Your task to perform on an android device: move a message to another label in the gmail app Image 0: 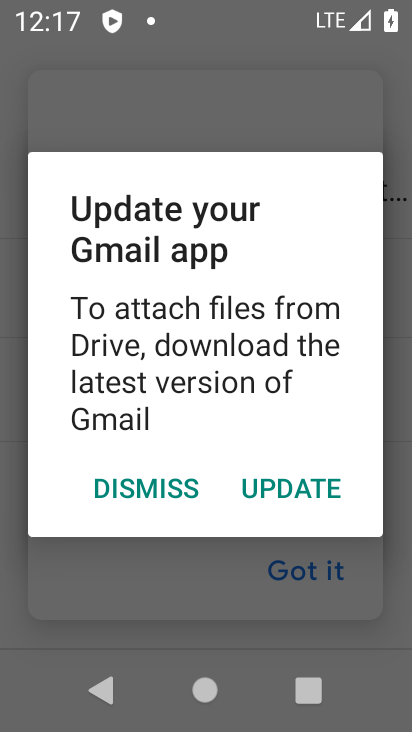
Step 0: press back button
Your task to perform on an android device: move a message to another label in the gmail app Image 1: 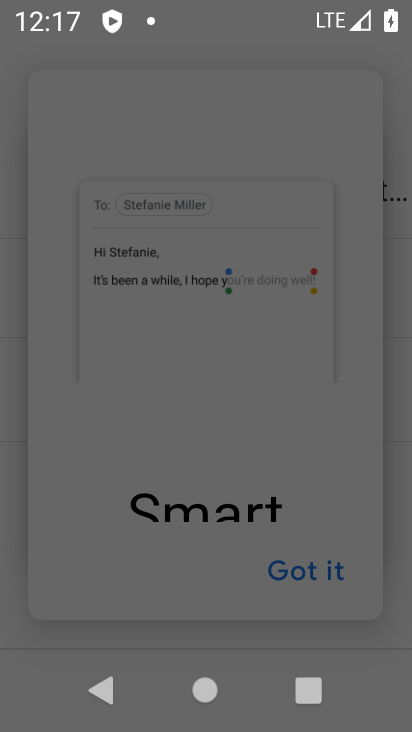
Step 1: press back button
Your task to perform on an android device: move a message to another label in the gmail app Image 2: 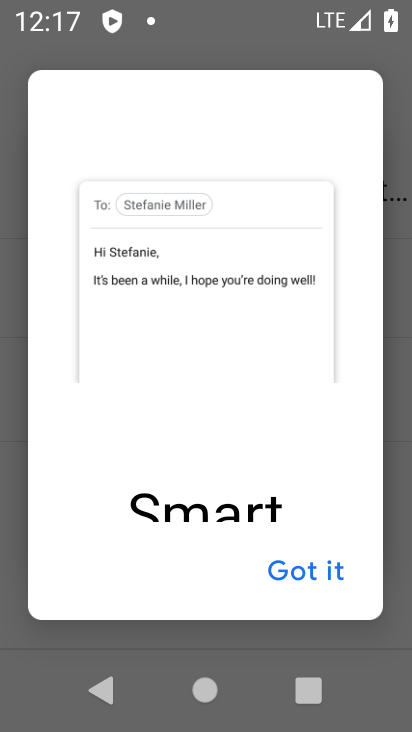
Step 2: press home button
Your task to perform on an android device: move a message to another label in the gmail app Image 3: 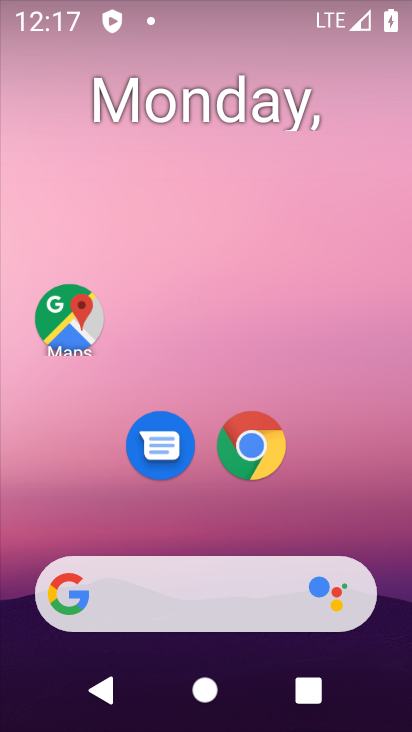
Step 3: drag from (200, 548) to (256, 265)
Your task to perform on an android device: move a message to another label in the gmail app Image 4: 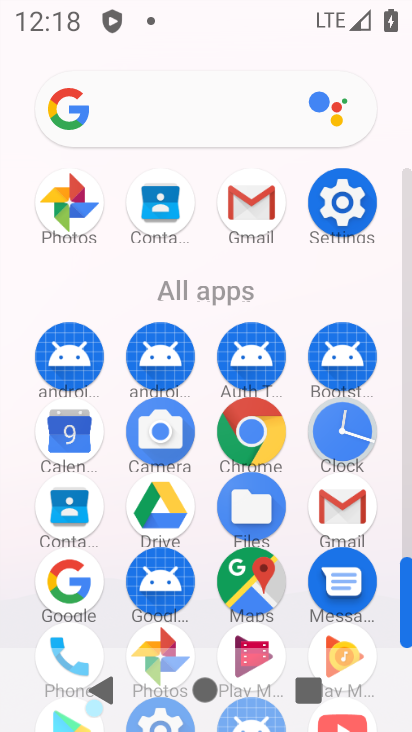
Step 4: click (343, 505)
Your task to perform on an android device: move a message to another label in the gmail app Image 5: 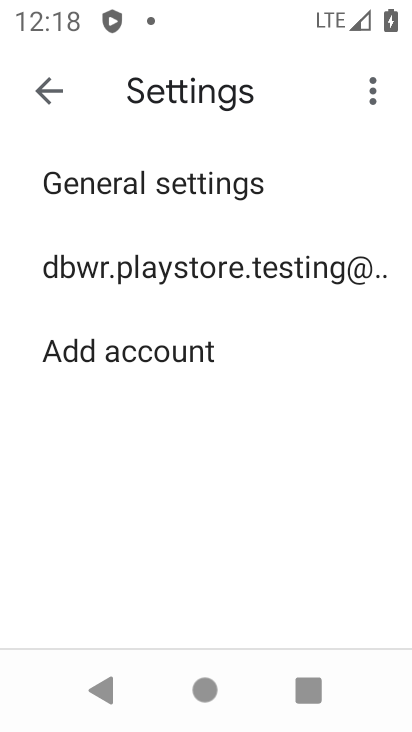
Step 5: click (39, 113)
Your task to perform on an android device: move a message to another label in the gmail app Image 6: 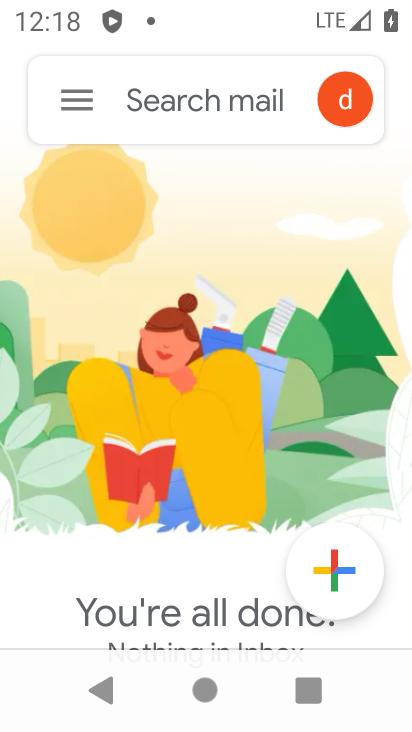
Step 6: click (41, 112)
Your task to perform on an android device: move a message to another label in the gmail app Image 7: 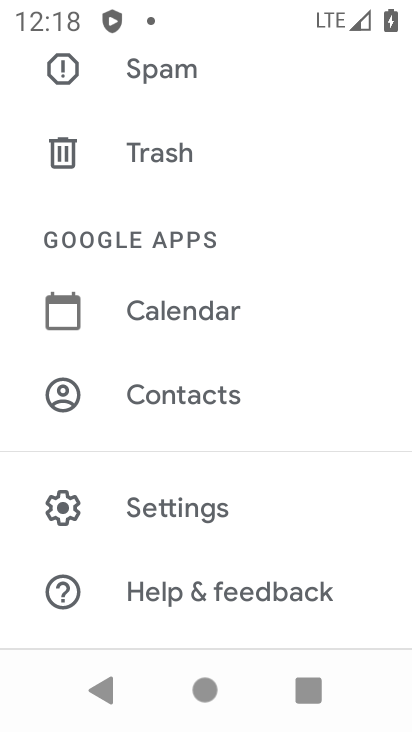
Step 7: drag from (247, 145) to (220, 473)
Your task to perform on an android device: move a message to another label in the gmail app Image 8: 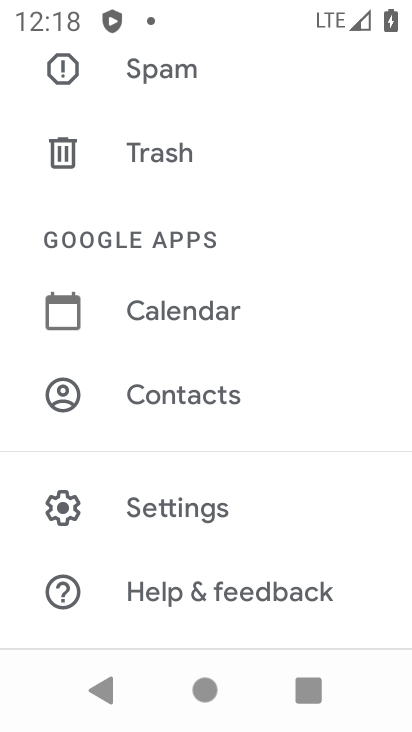
Step 8: drag from (301, 183) to (288, 498)
Your task to perform on an android device: move a message to another label in the gmail app Image 9: 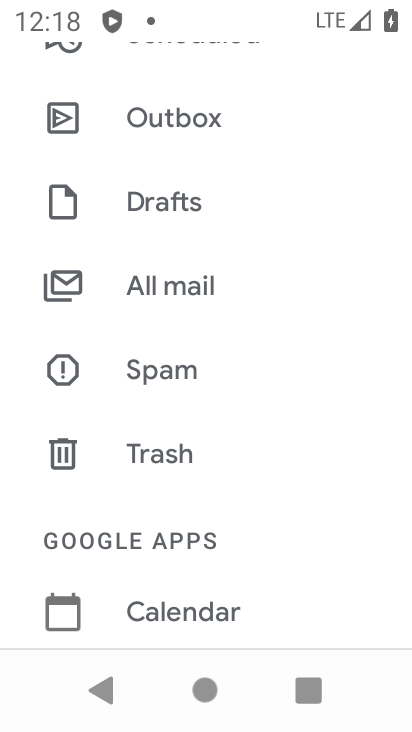
Step 9: click (249, 298)
Your task to perform on an android device: move a message to another label in the gmail app Image 10: 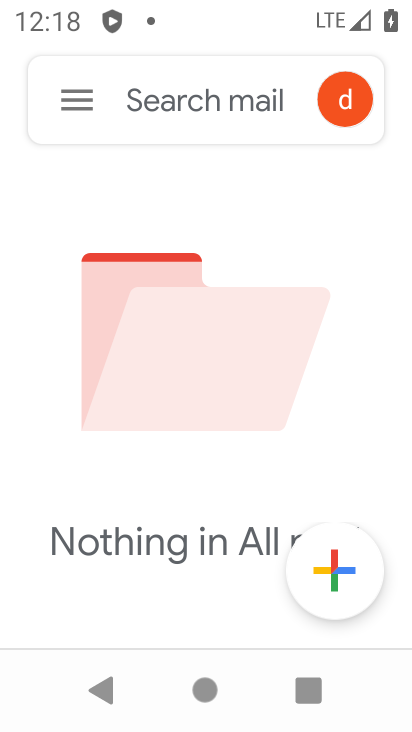
Step 10: task complete